Your task to perform on an android device: open a new tab in the chrome app Image 0: 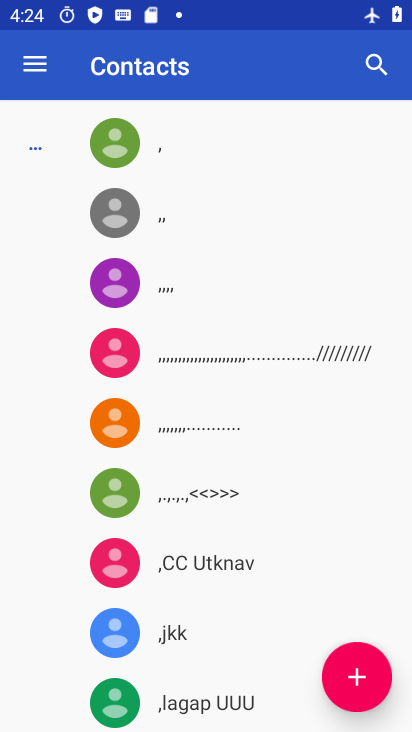
Step 0: press home button
Your task to perform on an android device: open a new tab in the chrome app Image 1: 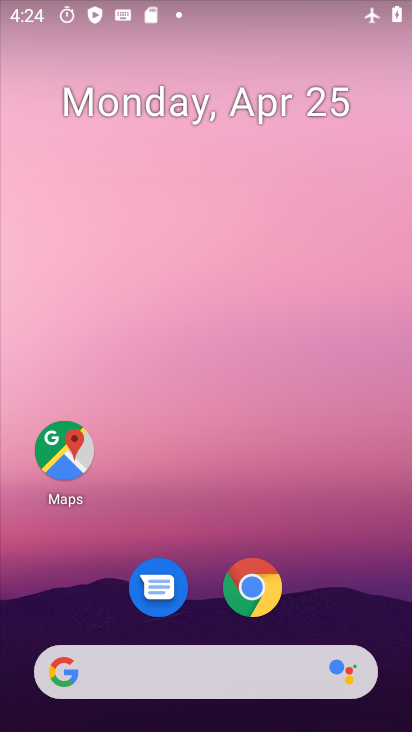
Step 1: drag from (340, 570) to (296, 155)
Your task to perform on an android device: open a new tab in the chrome app Image 2: 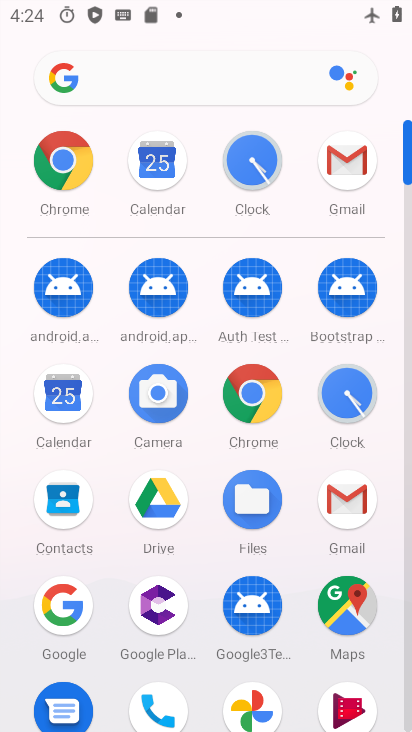
Step 2: click (253, 391)
Your task to perform on an android device: open a new tab in the chrome app Image 3: 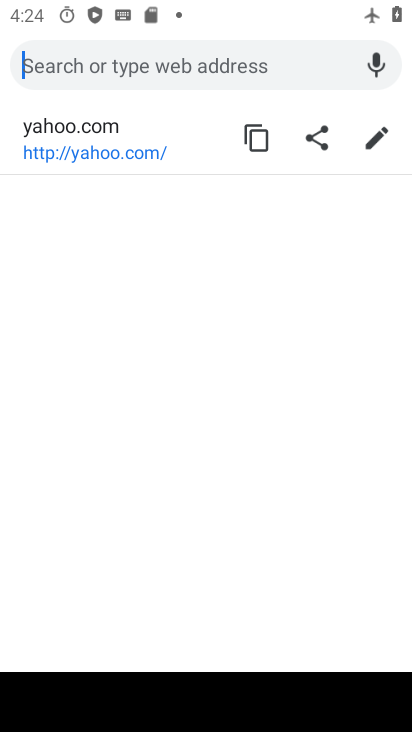
Step 3: task complete